Your task to perform on an android device: What's the weather? Image 0: 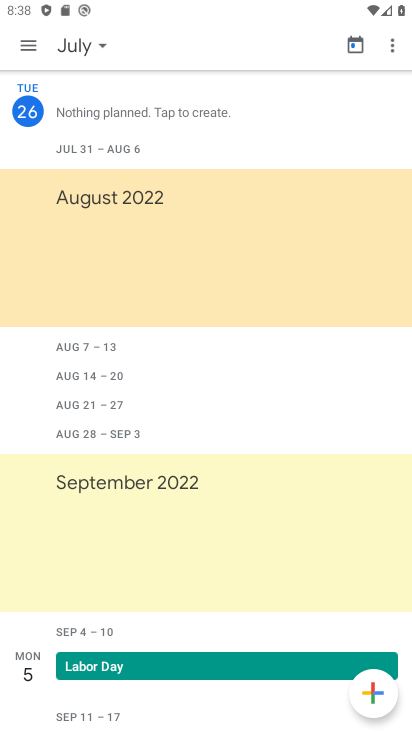
Step 0: press home button
Your task to perform on an android device: What's the weather? Image 1: 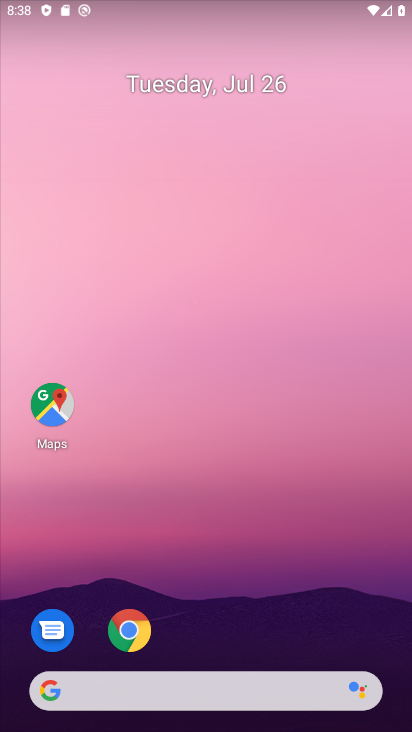
Step 1: drag from (296, 593) to (296, 4)
Your task to perform on an android device: What's the weather? Image 2: 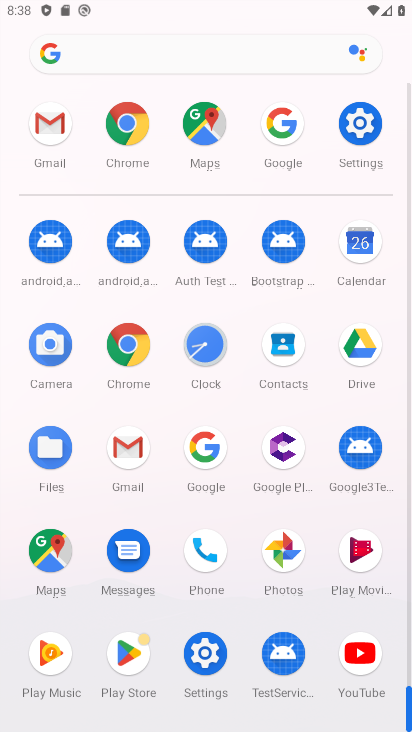
Step 2: click (278, 136)
Your task to perform on an android device: What's the weather? Image 3: 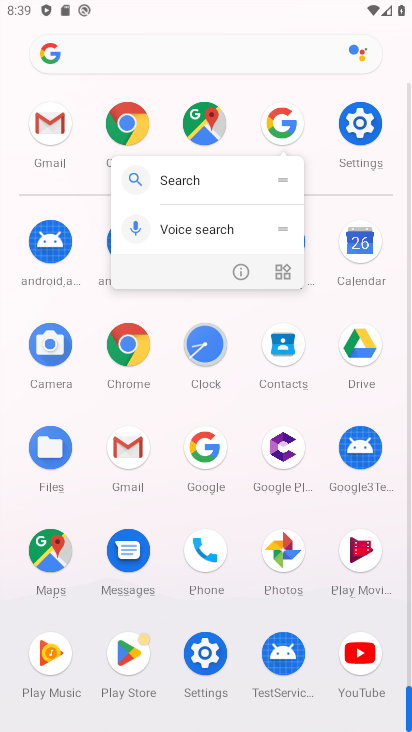
Step 3: click (278, 135)
Your task to perform on an android device: What's the weather? Image 4: 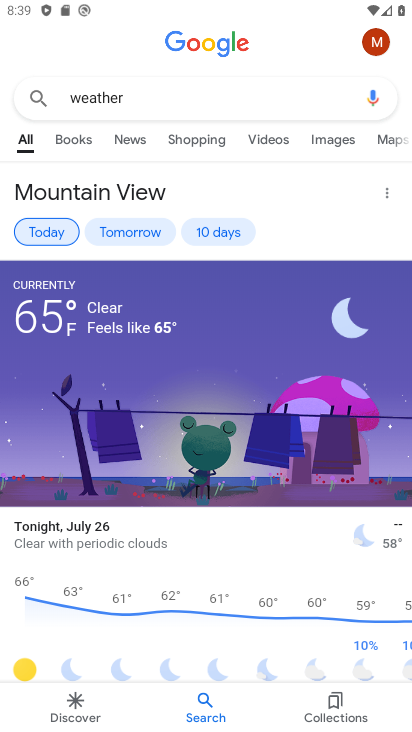
Step 4: task complete